Your task to perform on an android device: toggle pop-ups in chrome Image 0: 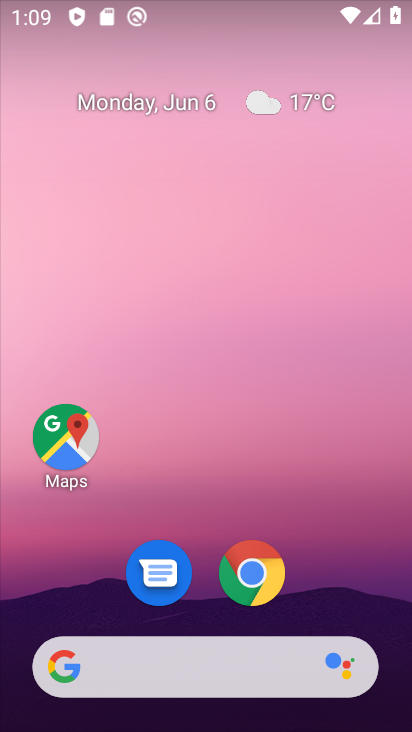
Step 0: drag from (358, 573) to (359, 152)
Your task to perform on an android device: toggle pop-ups in chrome Image 1: 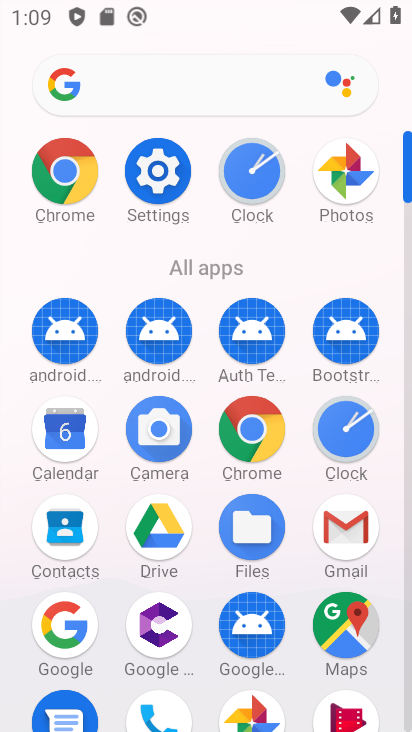
Step 1: click (267, 433)
Your task to perform on an android device: toggle pop-ups in chrome Image 2: 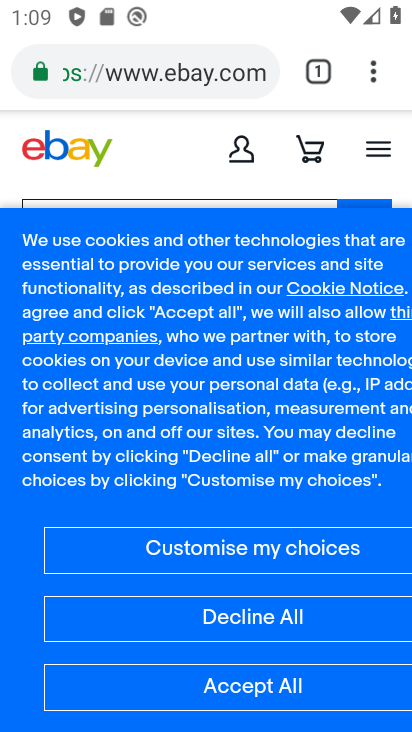
Step 2: click (374, 82)
Your task to perform on an android device: toggle pop-ups in chrome Image 3: 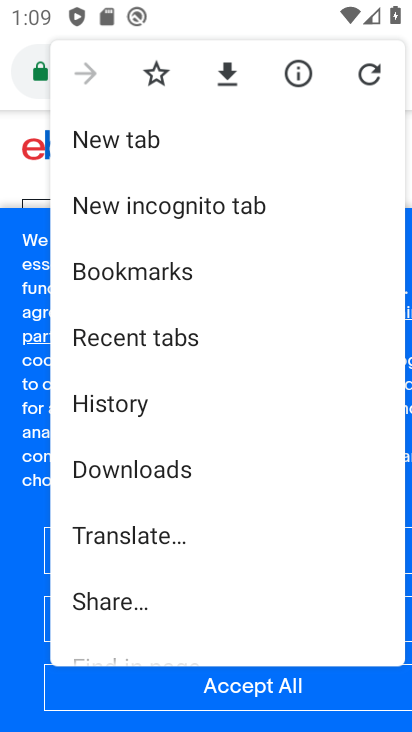
Step 3: drag from (317, 470) to (322, 287)
Your task to perform on an android device: toggle pop-ups in chrome Image 4: 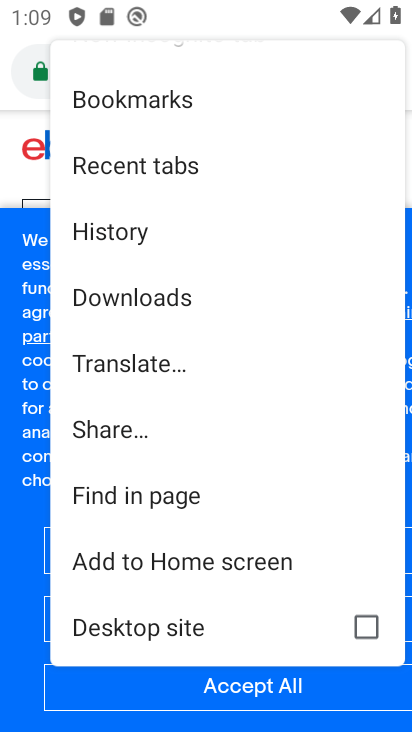
Step 4: drag from (351, 516) to (349, 328)
Your task to perform on an android device: toggle pop-ups in chrome Image 5: 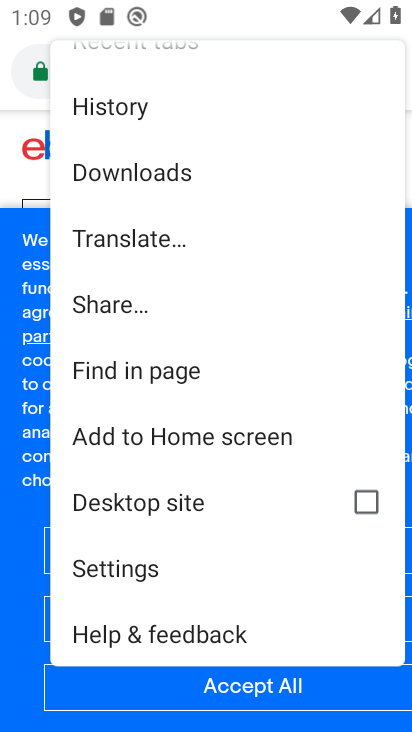
Step 5: click (172, 585)
Your task to perform on an android device: toggle pop-ups in chrome Image 6: 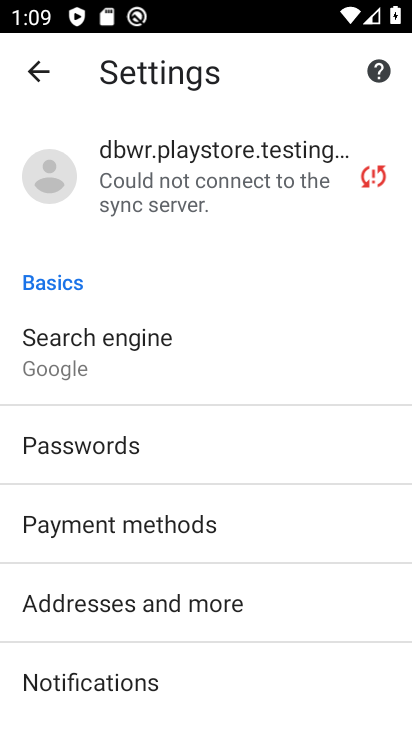
Step 6: drag from (321, 574) to (330, 463)
Your task to perform on an android device: toggle pop-ups in chrome Image 7: 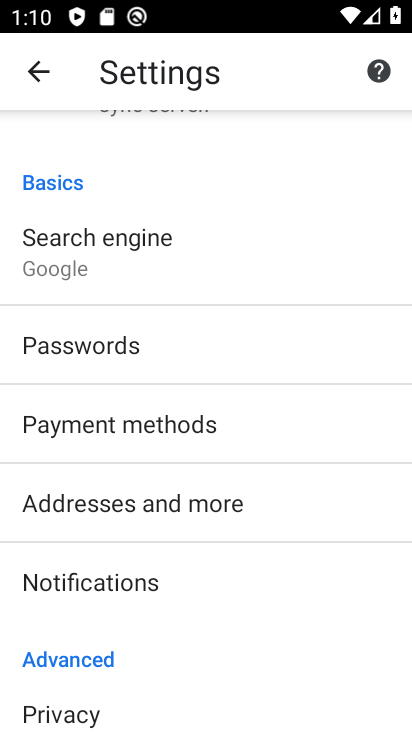
Step 7: drag from (324, 592) to (344, 348)
Your task to perform on an android device: toggle pop-ups in chrome Image 8: 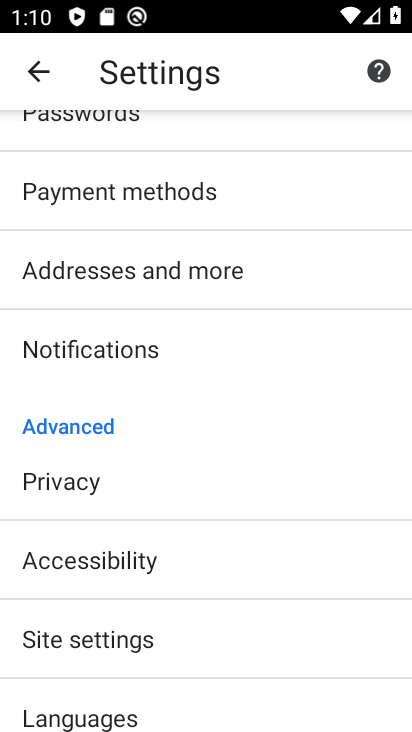
Step 8: drag from (335, 509) to (346, 397)
Your task to perform on an android device: toggle pop-ups in chrome Image 9: 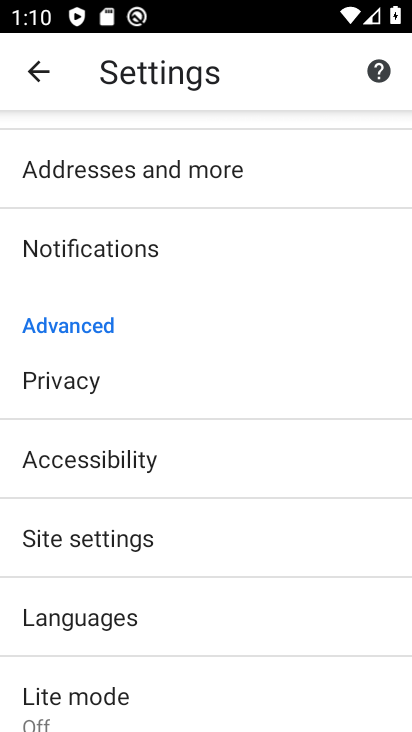
Step 9: drag from (311, 571) to (323, 411)
Your task to perform on an android device: toggle pop-ups in chrome Image 10: 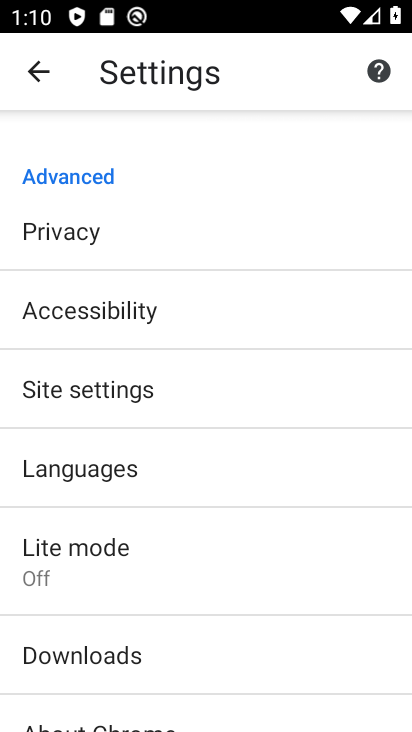
Step 10: click (244, 375)
Your task to perform on an android device: toggle pop-ups in chrome Image 11: 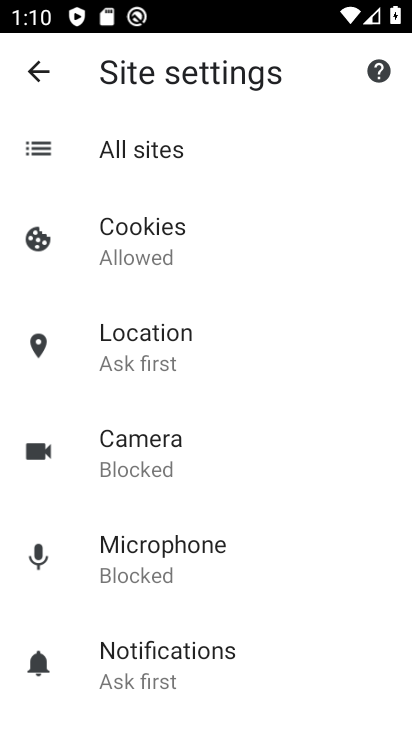
Step 11: drag from (310, 520) to (317, 415)
Your task to perform on an android device: toggle pop-ups in chrome Image 12: 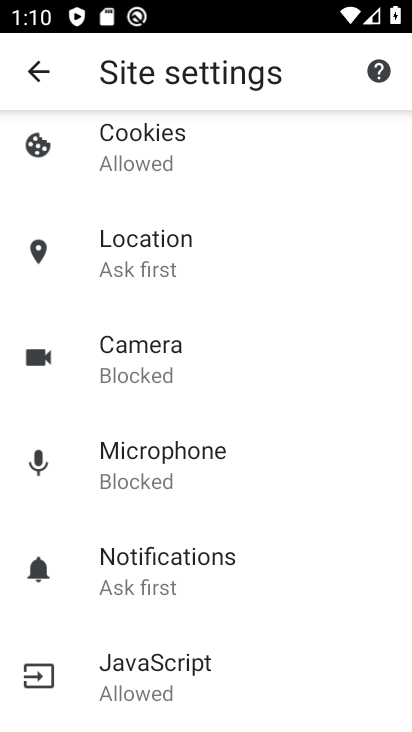
Step 12: drag from (292, 577) to (297, 446)
Your task to perform on an android device: toggle pop-ups in chrome Image 13: 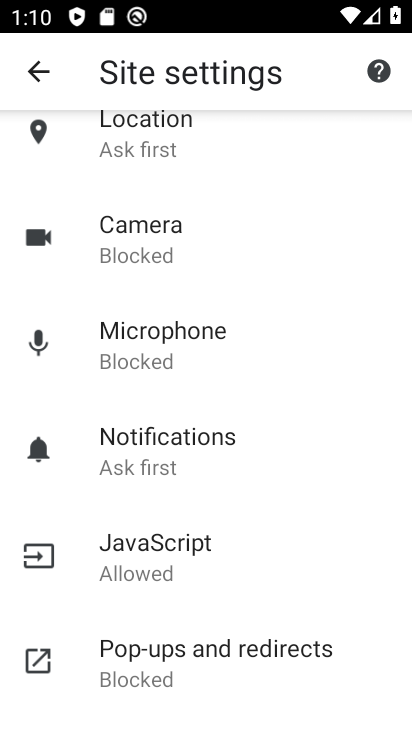
Step 13: drag from (299, 575) to (308, 418)
Your task to perform on an android device: toggle pop-ups in chrome Image 14: 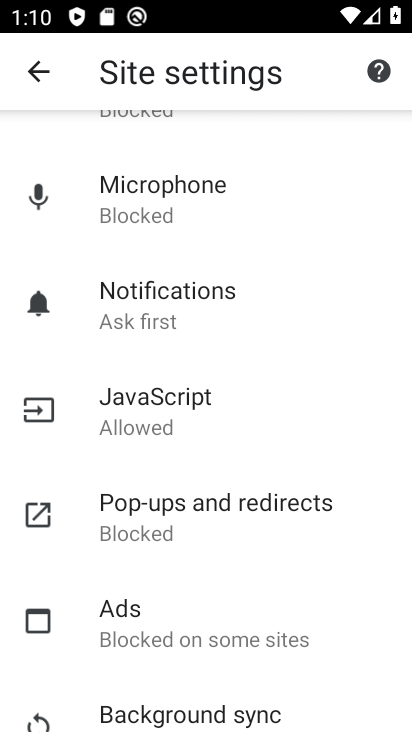
Step 14: click (227, 522)
Your task to perform on an android device: toggle pop-ups in chrome Image 15: 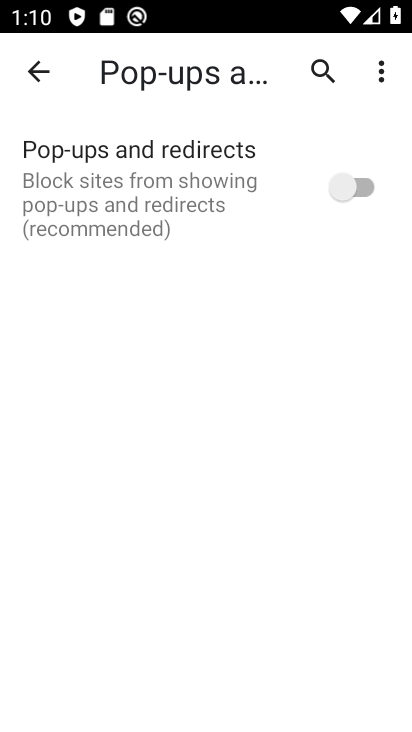
Step 15: click (363, 190)
Your task to perform on an android device: toggle pop-ups in chrome Image 16: 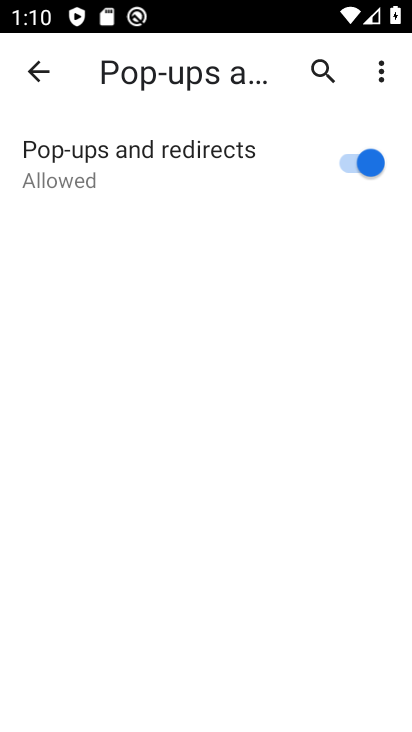
Step 16: task complete